Your task to perform on an android device: clear all cookies in the chrome app Image 0: 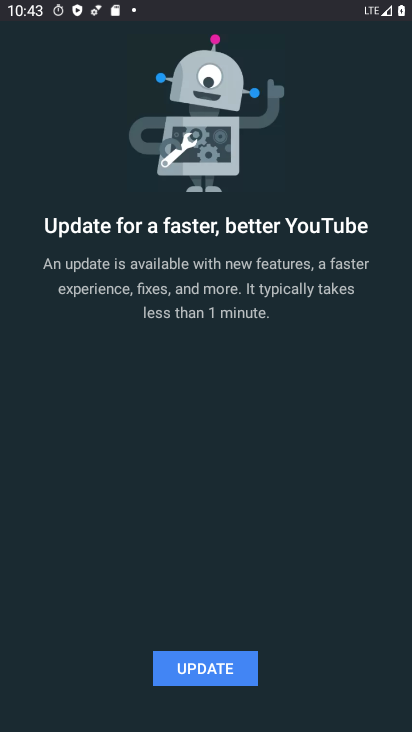
Step 0: press home button
Your task to perform on an android device: clear all cookies in the chrome app Image 1: 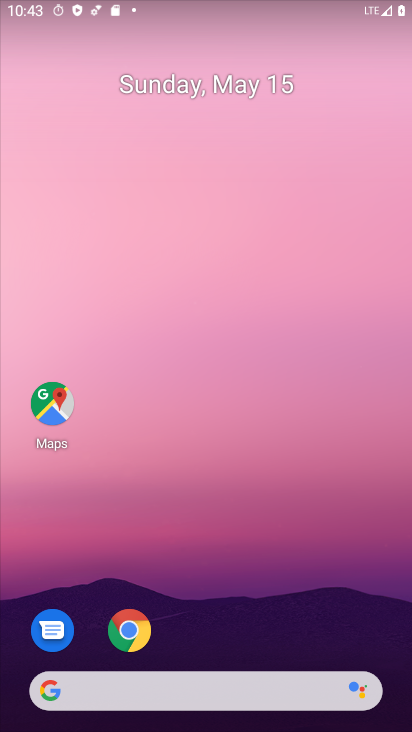
Step 1: click (132, 633)
Your task to perform on an android device: clear all cookies in the chrome app Image 2: 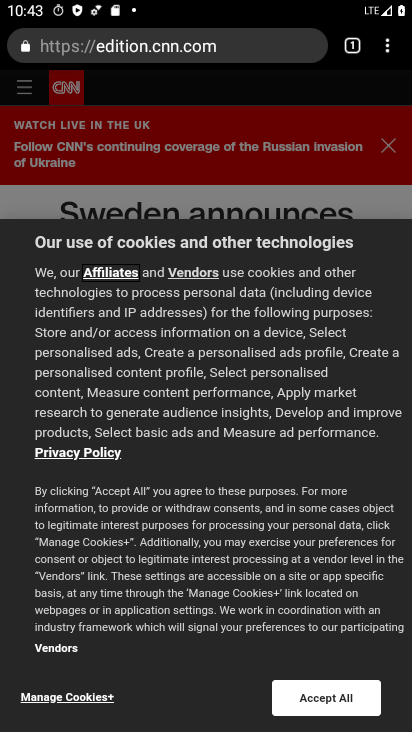
Step 2: drag from (386, 38) to (233, 509)
Your task to perform on an android device: clear all cookies in the chrome app Image 3: 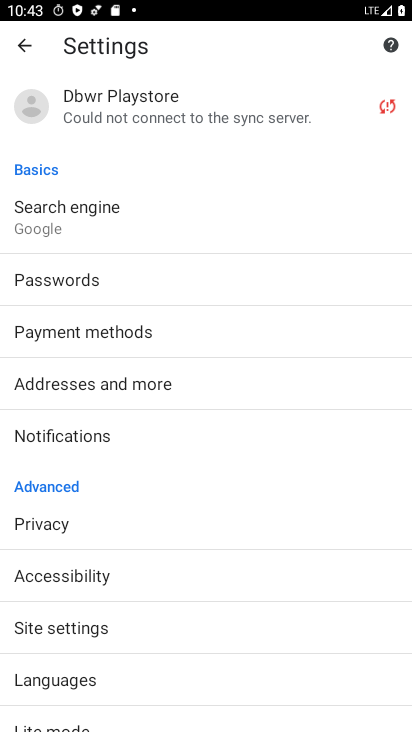
Step 3: click (70, 633)
Your task to perform on an android device: clear all cookies in the chrome app Image 4: 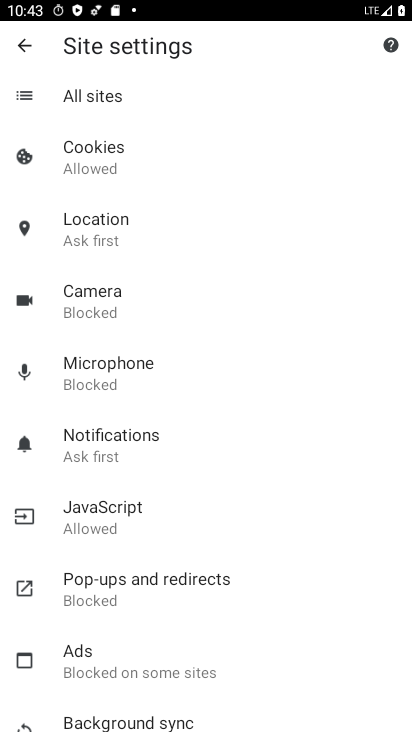
Step 4: click (77, 155)
Your task to perform on an android device: clear all cookies in the chrome app Image 5: 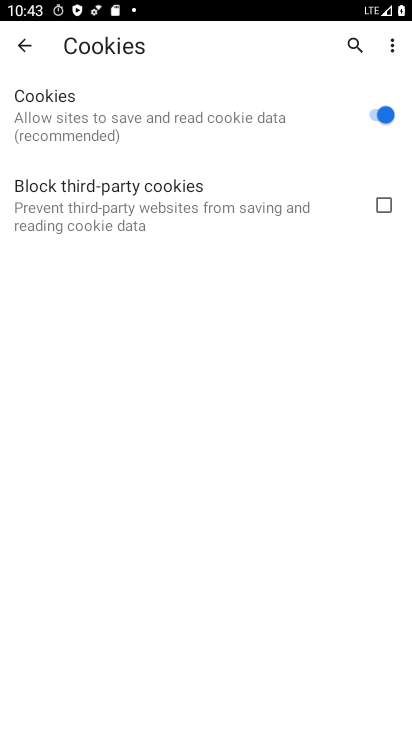
Step 5: click (28, 54)
Your task to perform on an android device: clear all cookies in the chrome app Image 6: 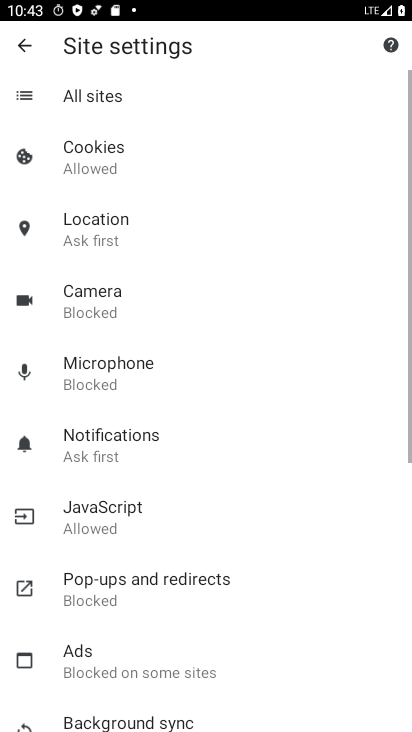
Step 6: click (28, 53)
Your task to perform on an android device: clear all cookies in the chrome app Image 7: 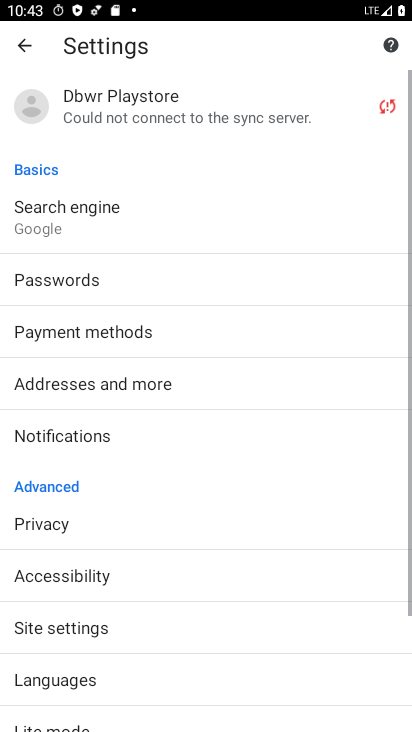
Step 7: click (28, 53)
Your task to perform on an android device: clear all cookies in the chrome app Image 8: 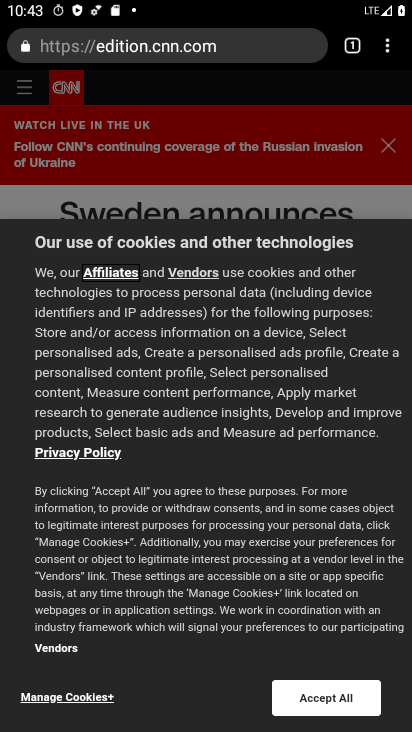
Step 8: drag from (389, 56) to (233, 260)
Your task to perform on an android device: clear all cookies in the chrome app Image 9: 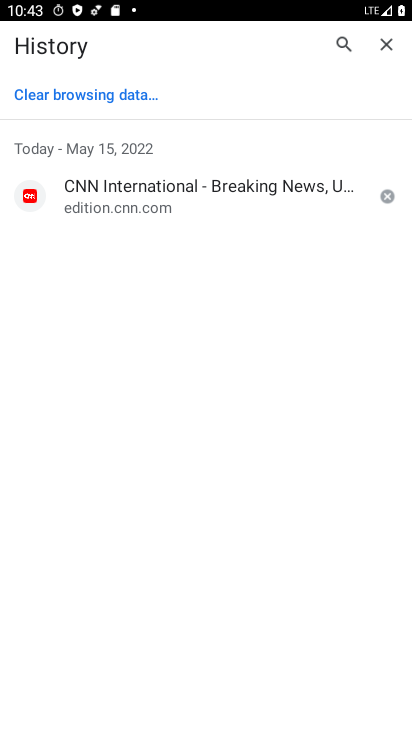
Step 9: click (92, 97)
Your task to perform on an android device: clear all cookies in the chrome app Image 10: 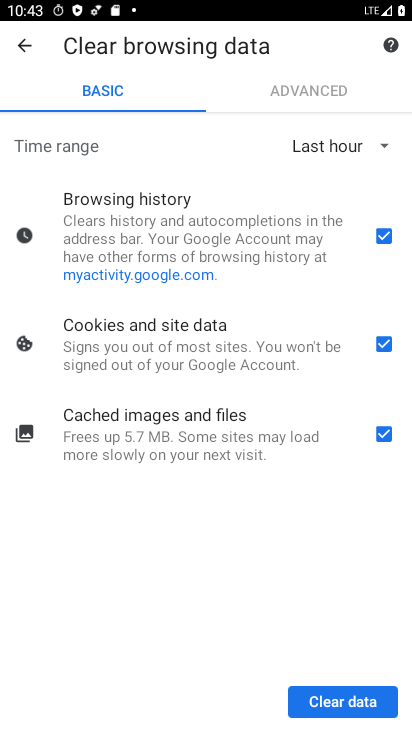
Step 10: click (396, 426)
Your task to perform on an android device: clear all cookies in the chrome app Image 11: 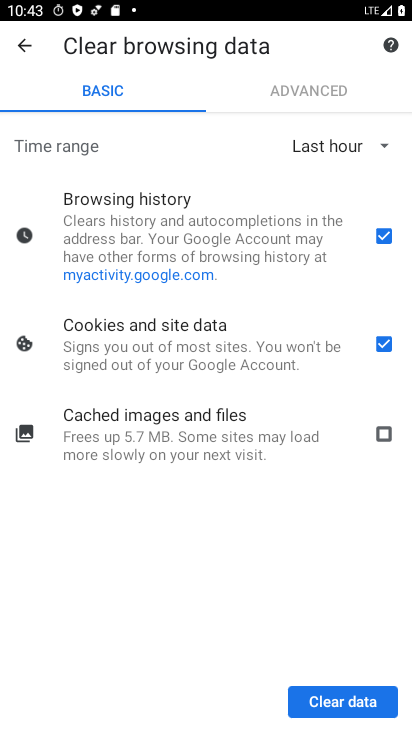
Step 11: click (392, 232)
Your task to perform on an android device: clear all cookies in the chrome app Image 12: 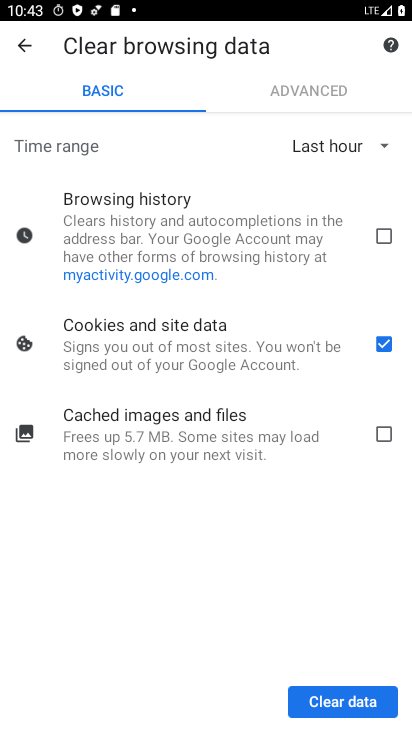
Step 12: click (314, 700)
Your task to perform on an android device: clear all cookies in the chrome app Image 13: 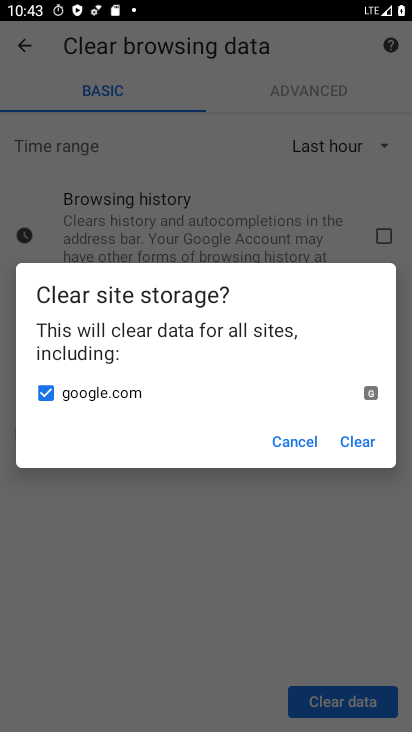
Step 13: click (366, 437)
Your task to perform on an android device: clear all cookies in the chrome app Image 14: 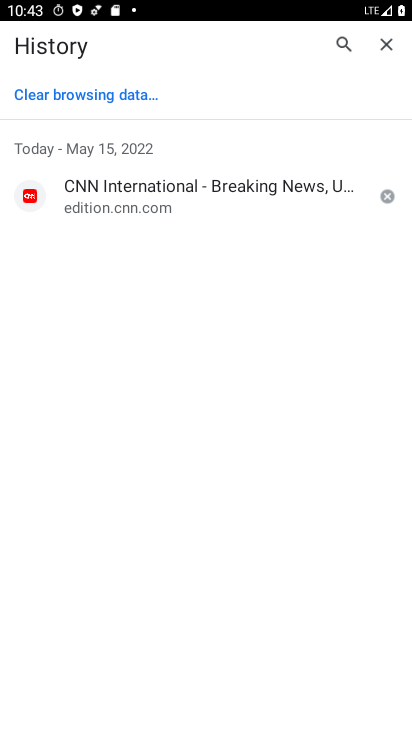
Step 14: task complete